Your task to perform on an android device: Open Chrome and go to the settings page Image 0: 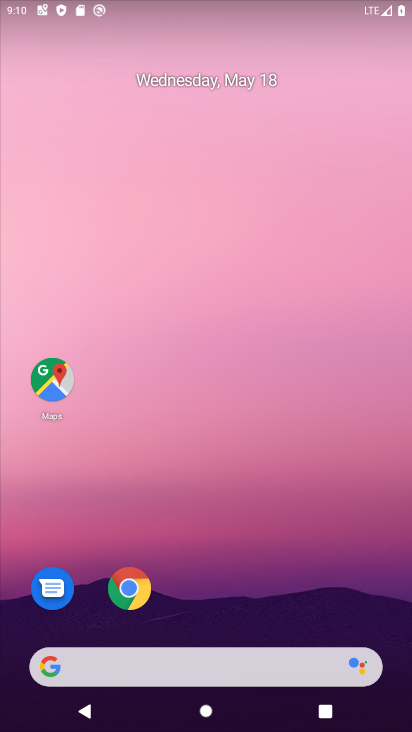
Step 0: click (125, 578)
Your task to perform on an android device: Open Chrome and go to the settings page Image 1: 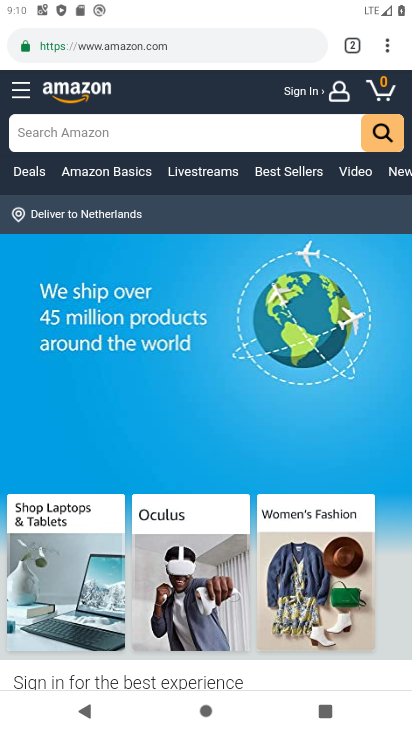
Step 1: click (385, 48)
Your task to perform on an android device: Open Chrome and go to the settings page Image 2: 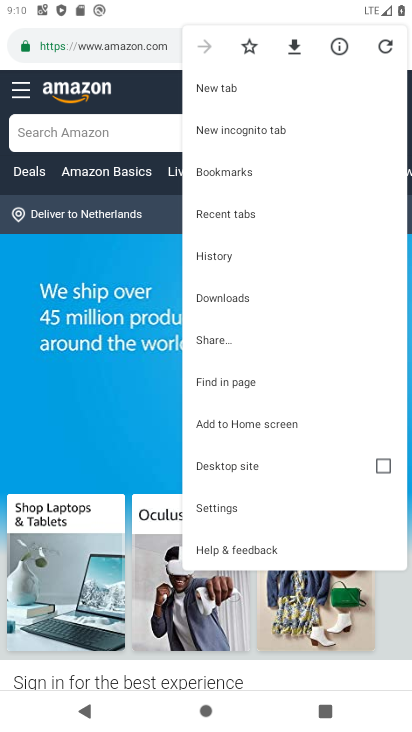
Step 2: click (217, 509)
Your task to perform on an android device: Open Chrome and go to the settings page Image 3: 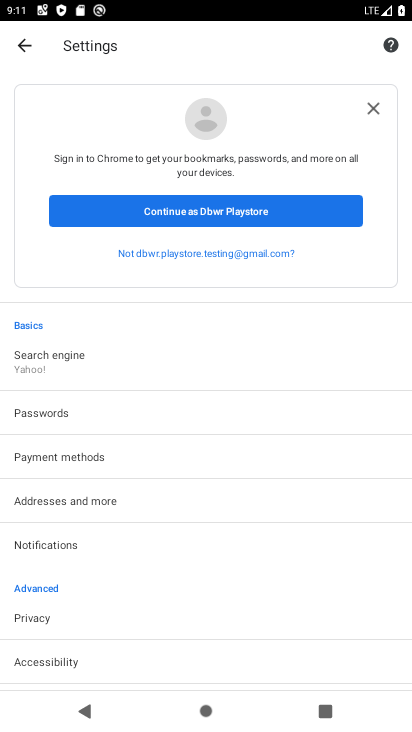
Step 3: task complete